Your task to perform on an android device: Open Android settings Image 0: 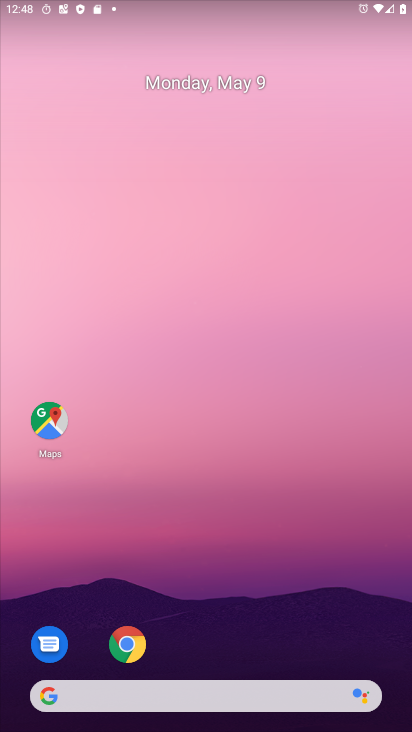
Step 0: drag from (297, 639) to (101, 140)
Your task to perform on an android device: Open Android settings Image 1: 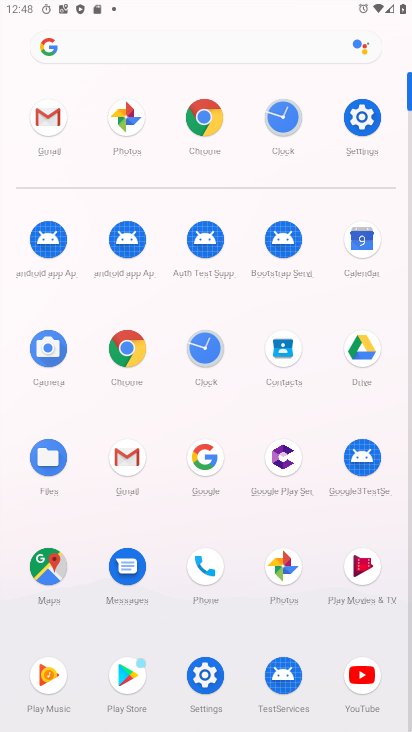
Step 1: click (362, 116)
Your task to perform on an android device: Open Android settings Image 2: 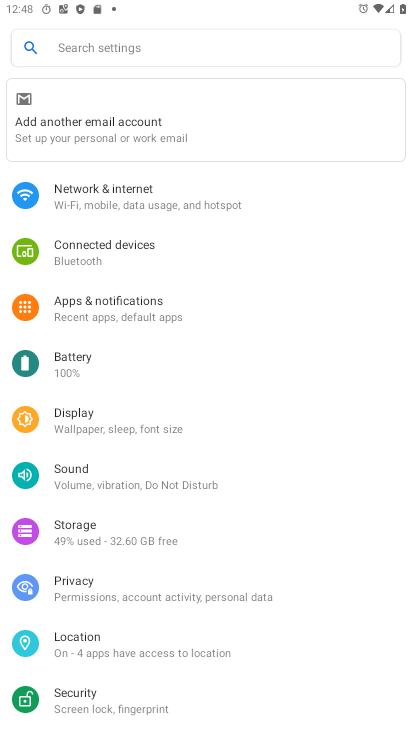
Step 2: drag from (80, 578) to (68, 325)
Your task to perform on an android device: Open Android settings Image 3: 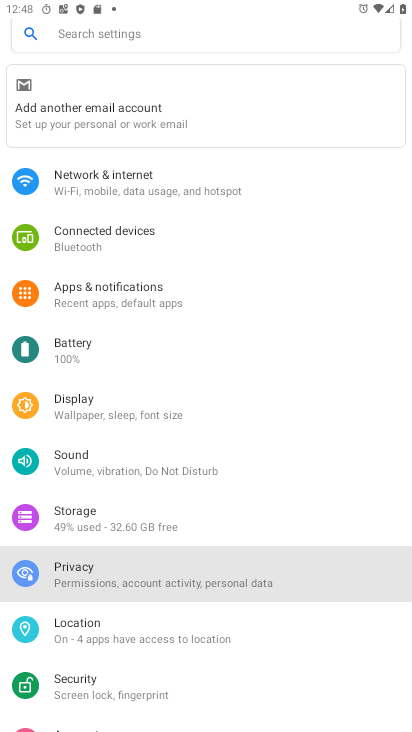
Step 3: drag from (136, 543) to (170, 159)
Your task to perform on an android device: Open Android settings Image 4: 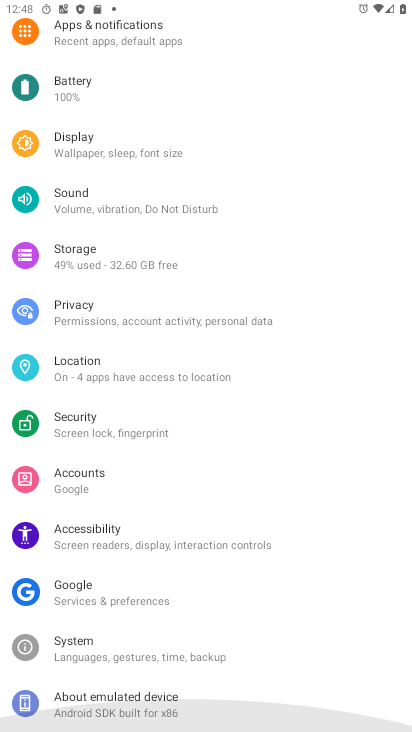
Step 4: drag from (182, 571) to (196, 173)
Your task to perform on an android device: Open Android settings Image 5: 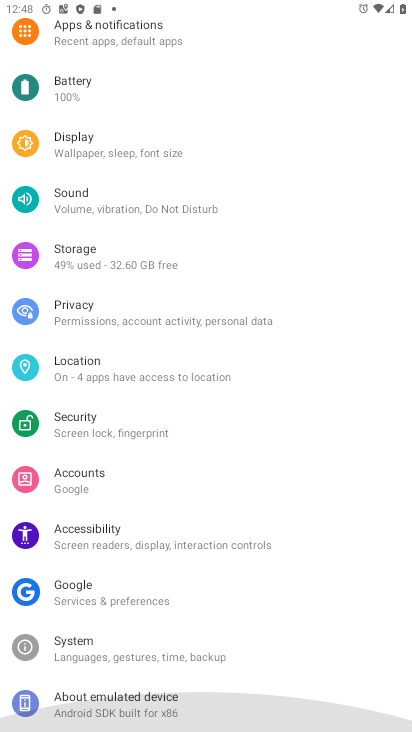
Step 5: drag from (239, 611) to (203, 193)
Your task to perform on an android device: Open Android settings Image 6: 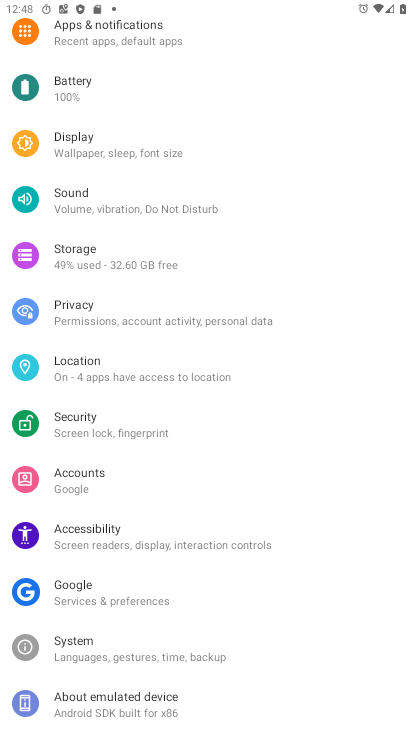
Step 6: click (97, 692)
Your task to perform on an android device: Open Android settings Image 7: 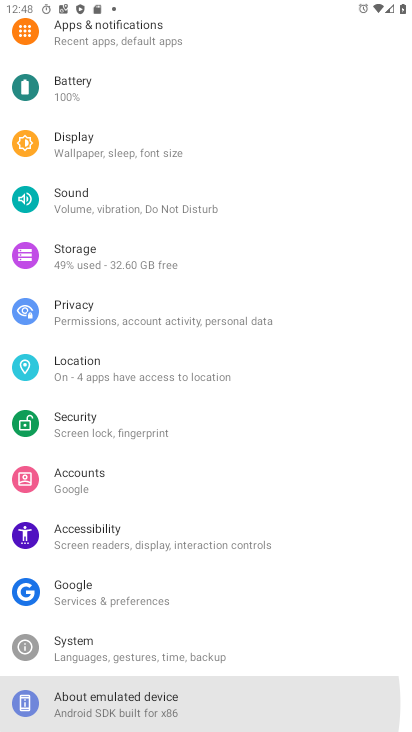
Step 7: click (97, 693)
Your task to perform on an android device: Open Android settings Image 8: 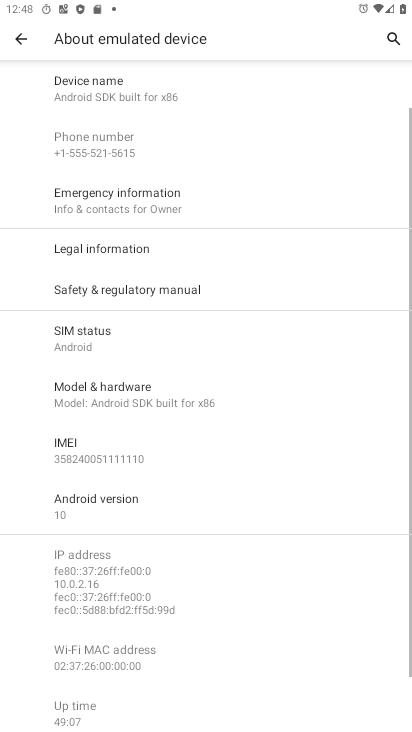
Step 8: task complete